Your task to perform on an android device: open a new tab in the chrome app Image 0: 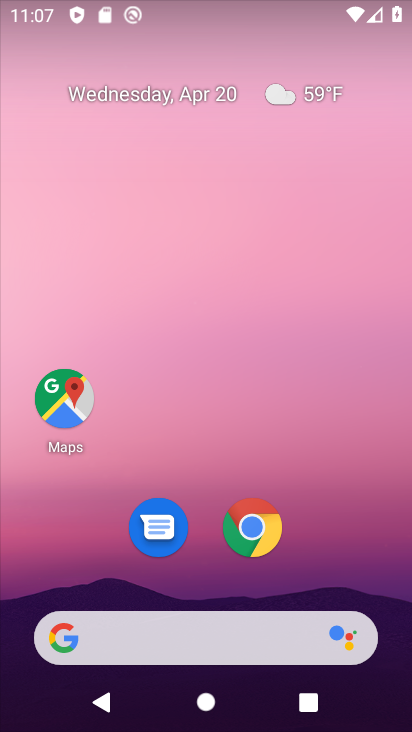
Step 0: drag from (368, 538) to (372, 161)
Your task to perform on an android device: open a new tab in the chrome app Image 1: 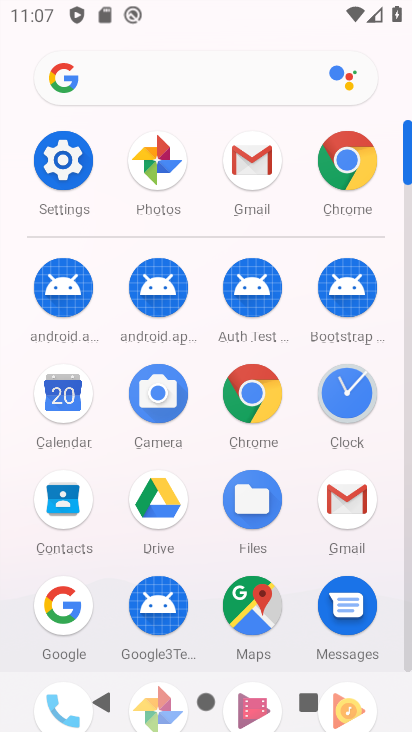
Step 1: click (243, 407)
Your task to perform on an android device: open a new tab in the chrome app Image 2: 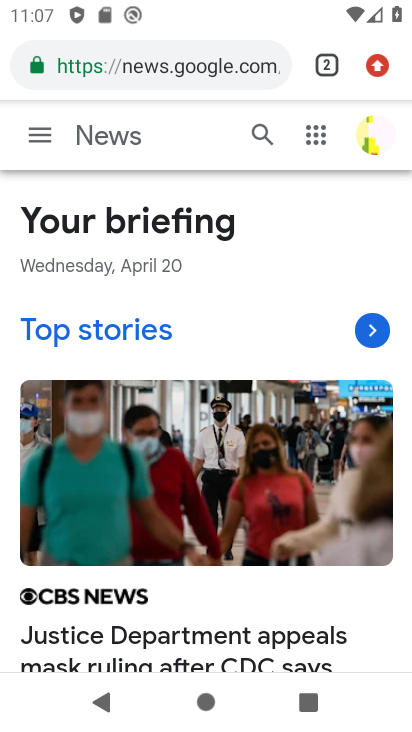
Step 2: click (334, 74)
Your task to perform on an android device: open a new tab in the chrome app Image 3: 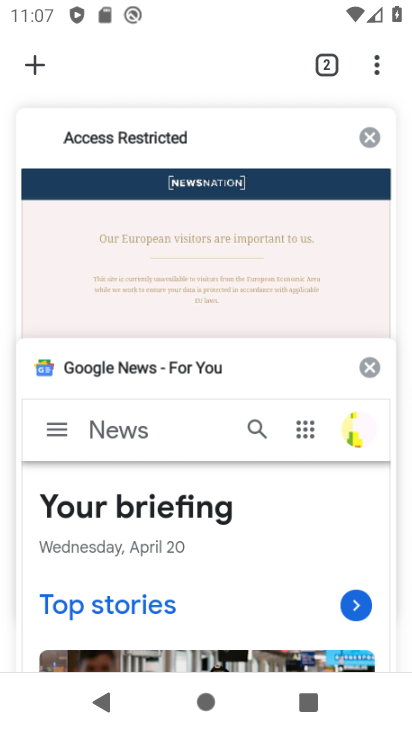
Step 3: click (38, 67)
Your task to perform on an android device: open a new tab in the chrome app Image 4: 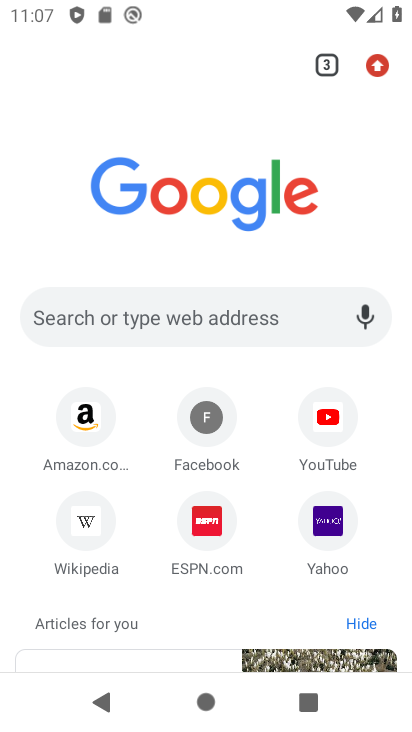
Step 4: click (250, 319)
Your task to perform on an android device: open a new tab in the chrome app Image 5: 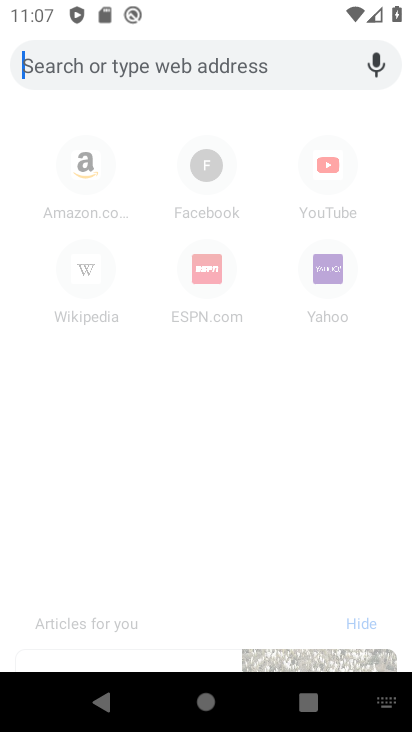
Step 5: task complete